Your task to perform on an android device: Is it going to rain this weekend? Image 0: 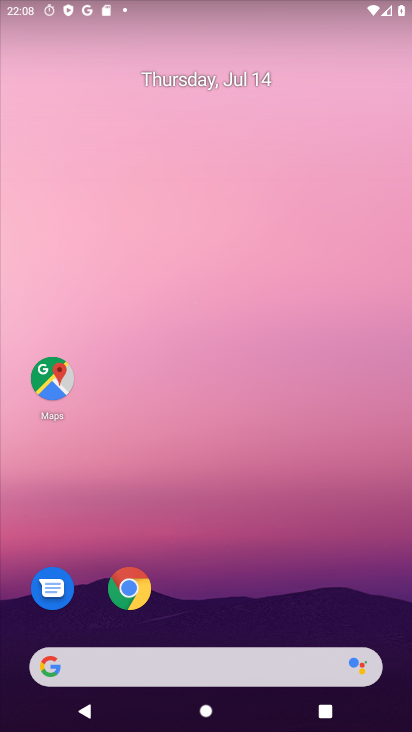
Step 0: drag from (206, 605) to (299, 102)
Your task to perform on an android device: Is it going to rain this weekend? Image 1: 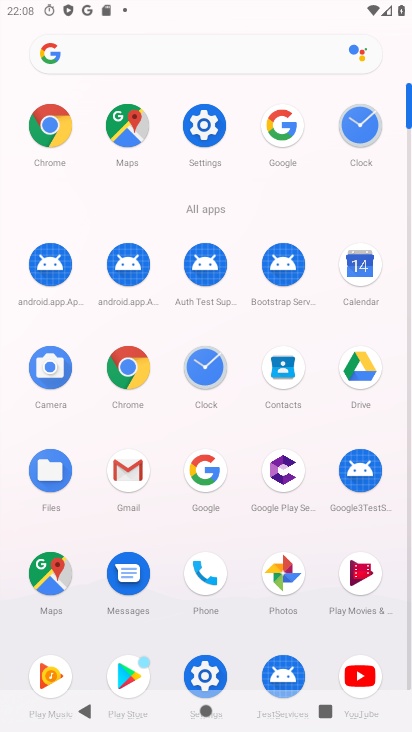
Step 1: click (279, 124)
Your task to perform on an android device: Is it going to rain this weekend? Image 2: 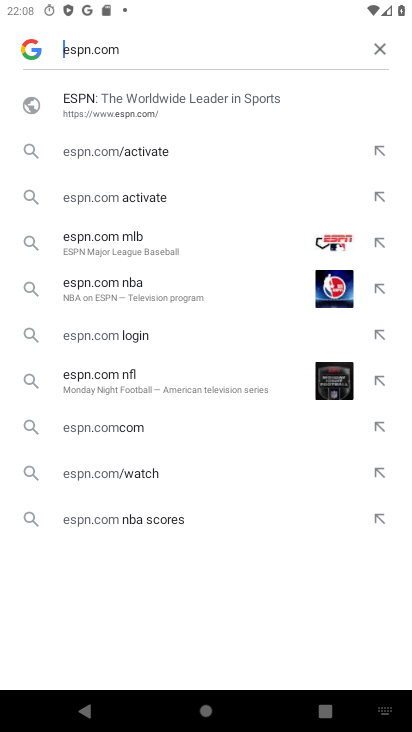
Step 2: click (381, 51)
Your task to perform on an android device: Is it going to rain this weekend? Image 3: 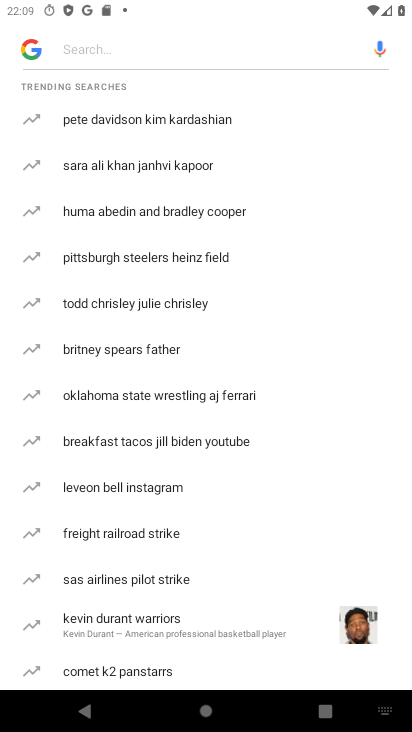
Step 3: type "Is it going to rain this weekend?"
Your task to perform on an android device: Is it going to rain this weekend? Image 4: 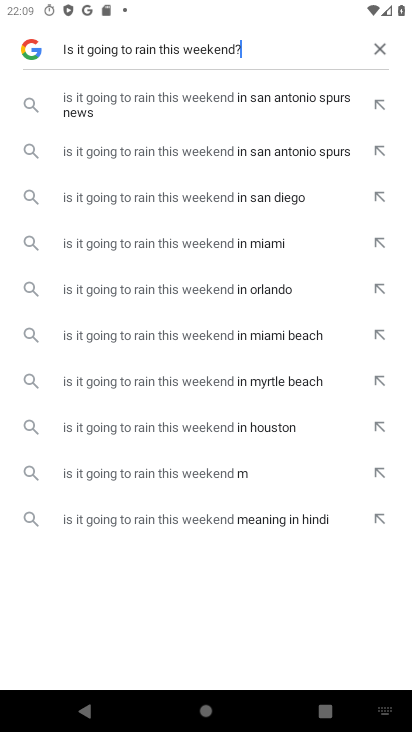
Step 4: click (376, 44)
Your task to perform on an android device: Is it going to rain this weekend? Image 5: 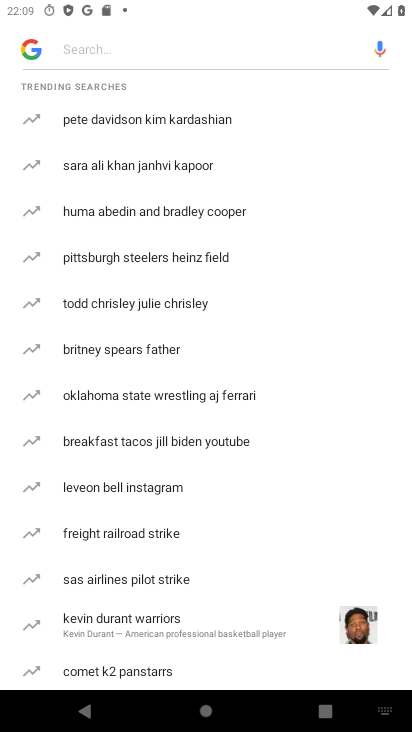
Step 5: drag from (194, 536) to (203, 113)
Your task to perform on an android device: Is it going to rain this weekend? Image 6: 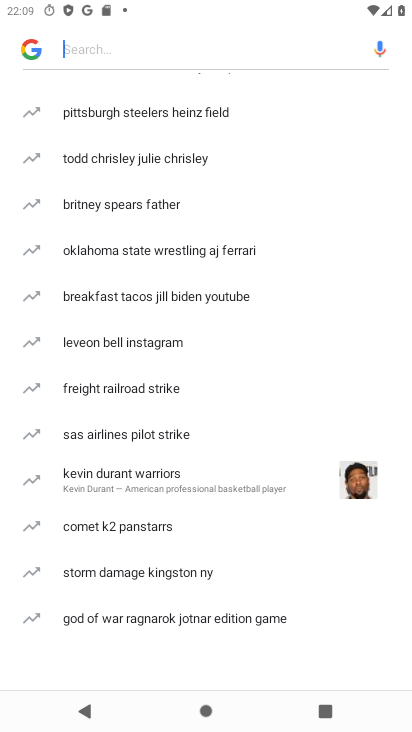
Step 6: type "is it going to rain this weekend"
Your task to perform on an android device: Is it going to rain this weekend? Image 7: 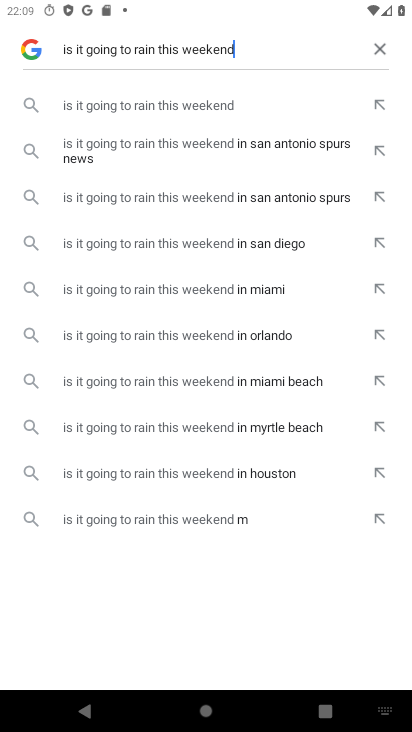
Step 7: click (173, 94)
Your task to perform on an android device: Is it going to rain this weekend? Image 8: 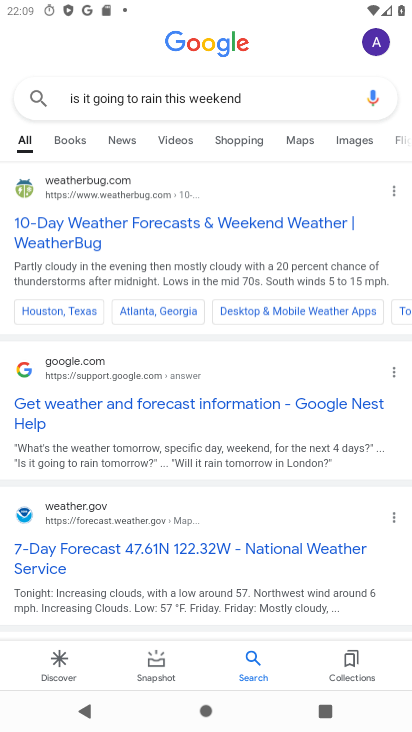
Step 8: task complete